Your task to perform on an android device: manage bookmarks in the chrome app Image 0: 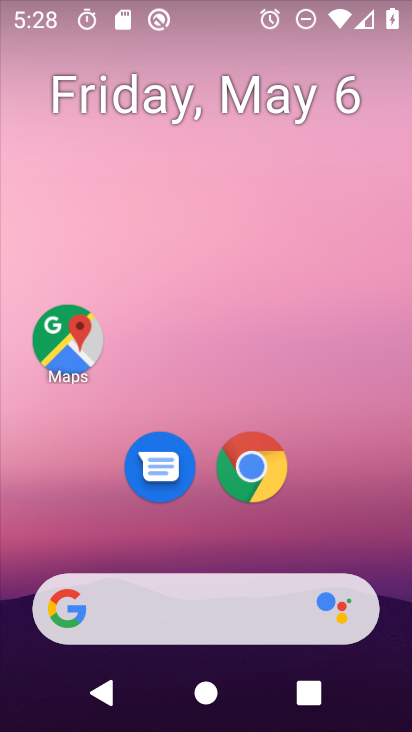
Step 0: click (238, 489)
Your task to perform on an android device: manage bookmarks in the chrome app Image 1: 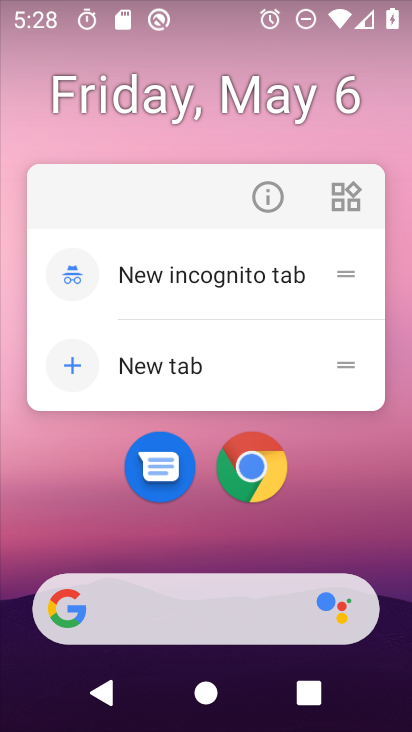
Step 1: click (241, 479)
Your task to perform on an android device: manage bookmarks in the chrome app Image 2: 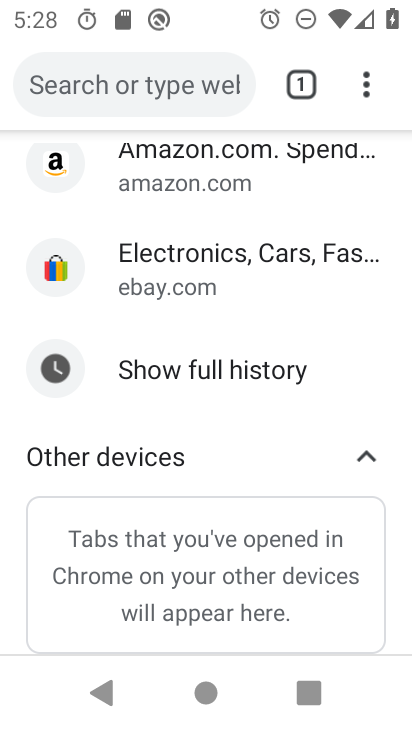
Step 2: click (360, 88)
Your task to perform on an android device: manage bookmarks in the chrome app Image 3: 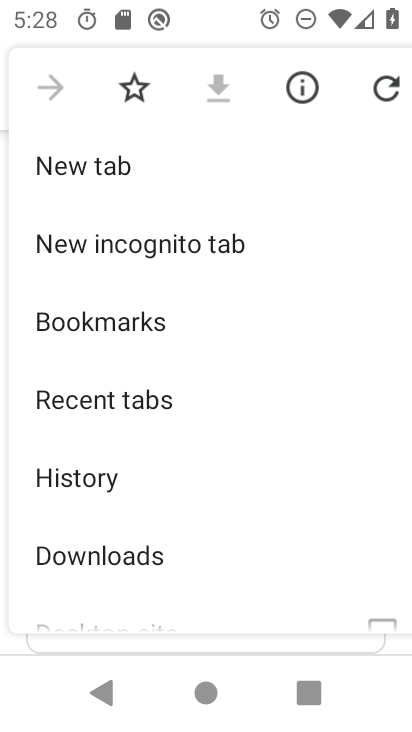
Step 3: click (137, 336)
Your task to perform on an android device: manage bookmarks in the chrome app Image 4: 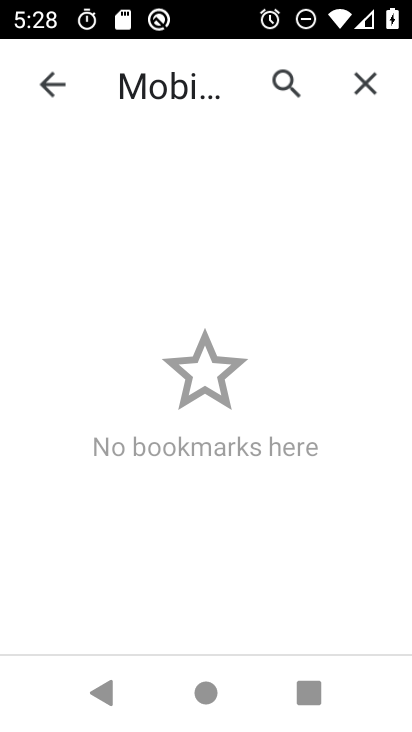
Step 4: task complete